Your task to perform on an android device: toggle location history Image 0: 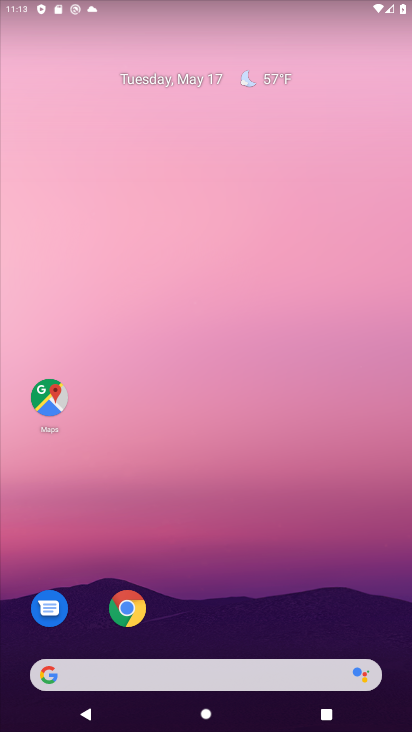
Step 0: drag from (249, 514) to (198, 78)
Your task to perform on an android device: toggle location history Image 1: 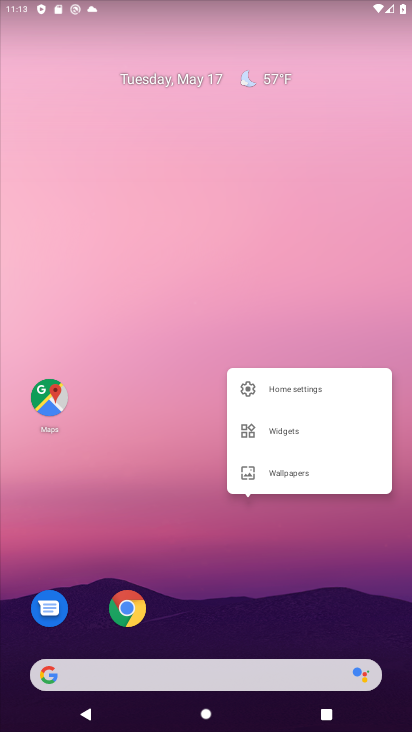
Step 1: click (142, 485)
Your task to perform on an android device: toggle location history Image 2: 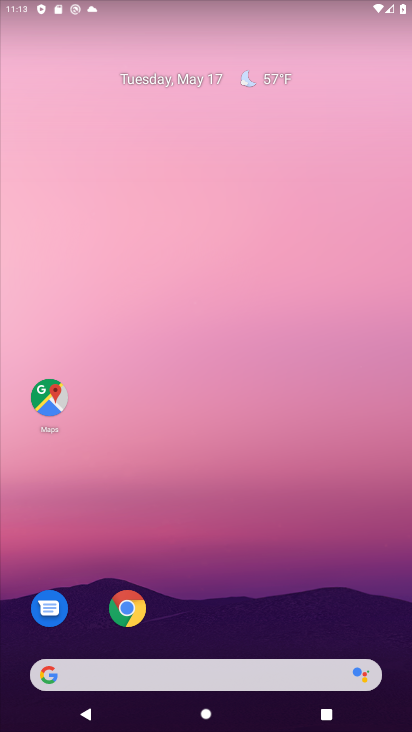
Step 2: drag from (187, 590) to (116, 98)
Your task to perform on an android device: toggle location history Image 3: 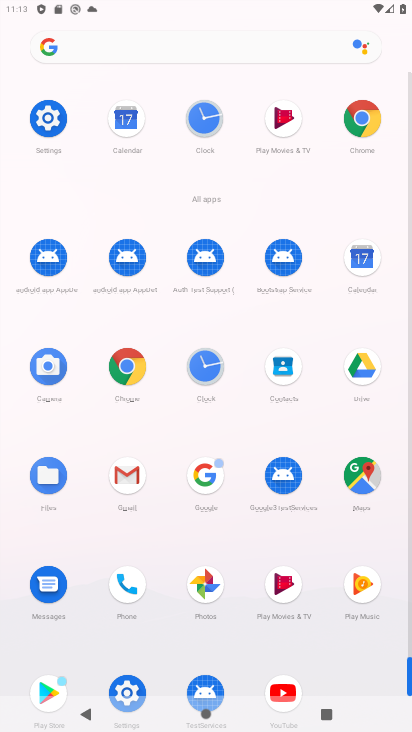
Step 3: click (356, 480)
Your task to perform on an android device: toggle location history Image 4: 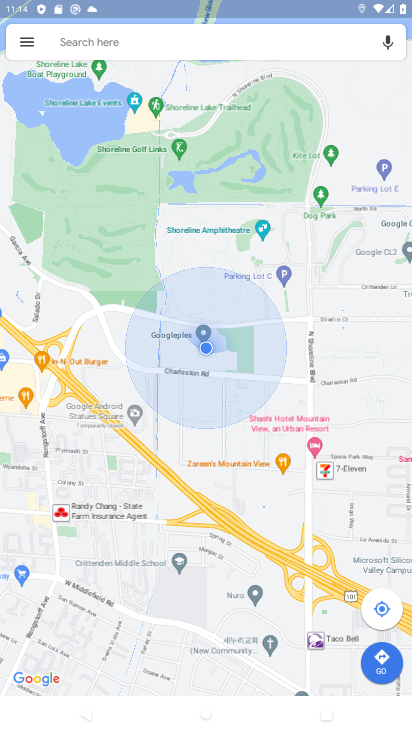
Step 4: click (20, 46)
Your task to perform on an android device: toggle location history Image 5: 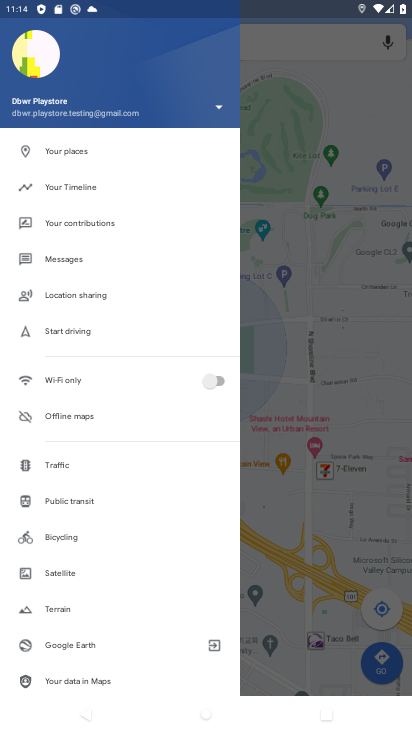
Step 5: click (79, 184)
Your task to perform on an android device: toggle location history Image 6: 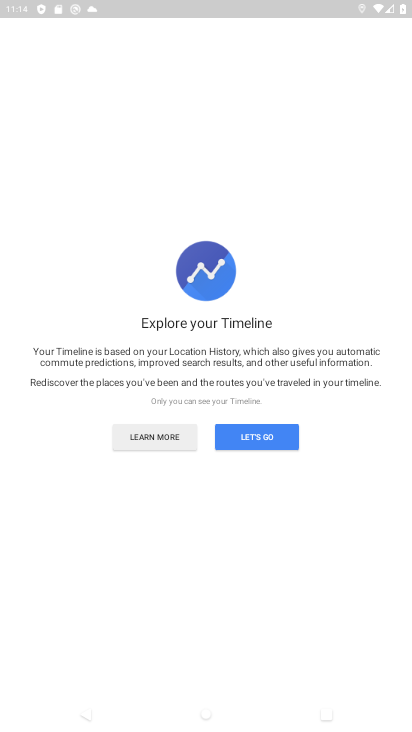
Step 6: click (240, 429)
Your task to perform on an android device: toggle location history Image 7: 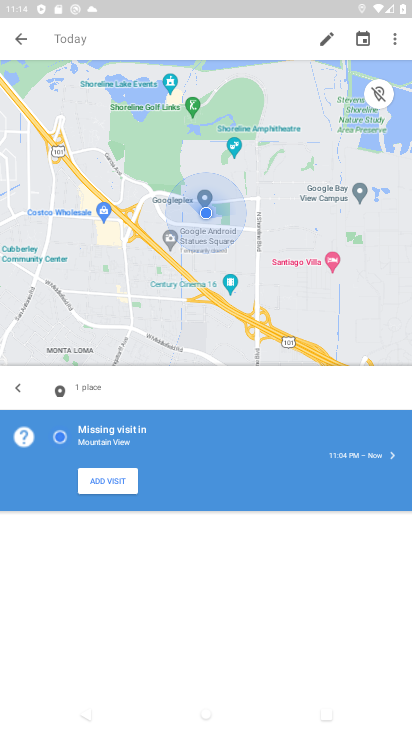
Step 7: click (394, 36)
Your task to perform on an android device: toggle location history Image 8: 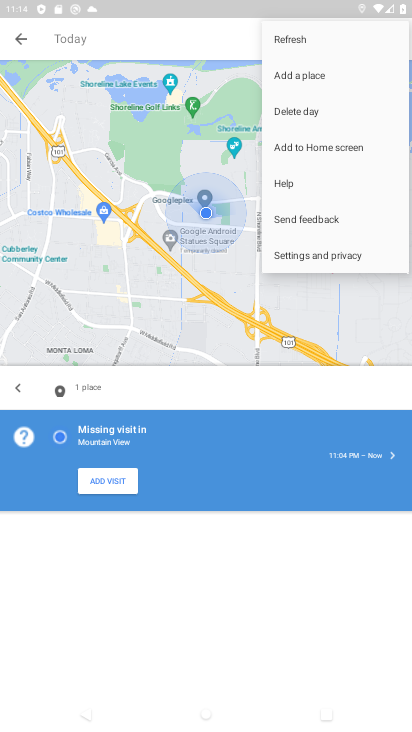
Step 8: click (307, 250)
Your task to perform on an android device: toggle location history Image 9: 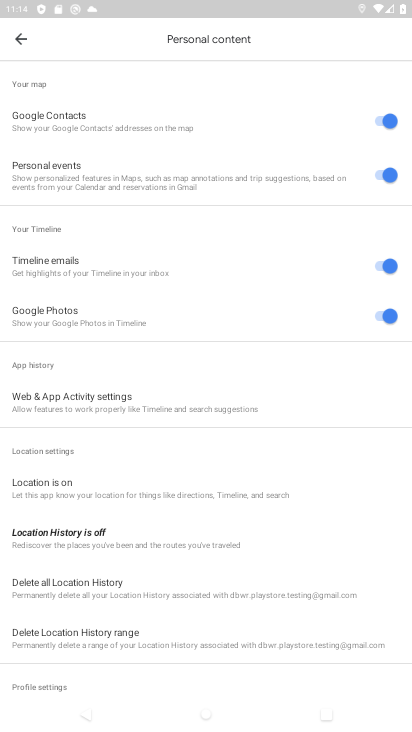
Step 9: drag from (231, 453) to (211, 289)
Your task to perform on an android device: toggle location history Image 10: 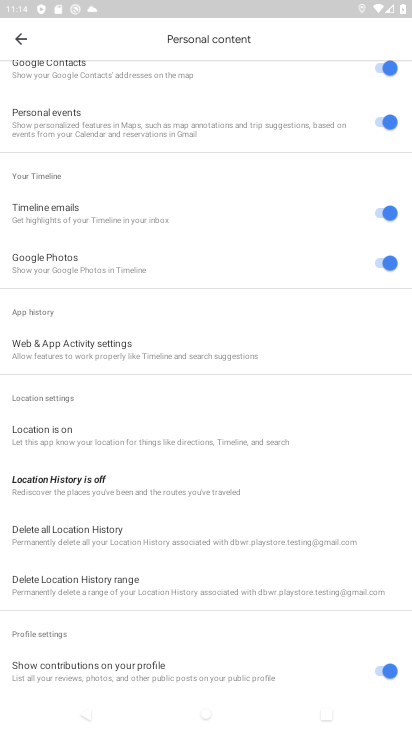
Step 10: click (70, 475)
Your task to perform on an android device: toggle location history Image 11: 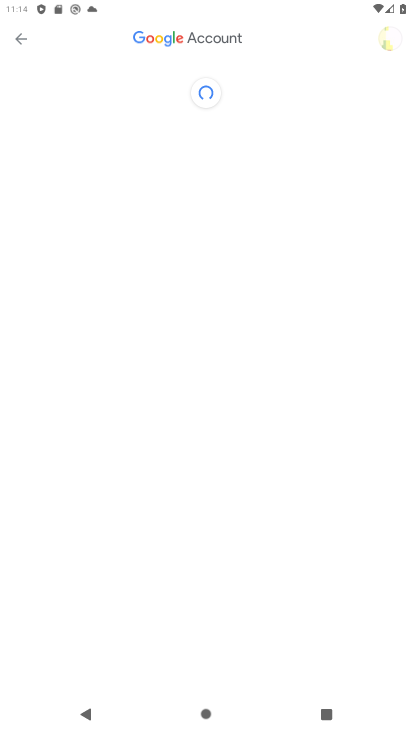
Step 11: click (64, 479)
Your task to perform on an android device: toggle location history Image 12: 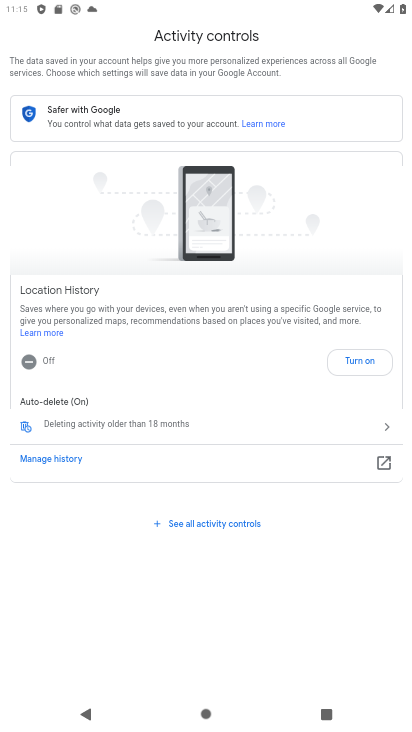
Step 12: click (360, 358)
Your task to perform on an android device: toggle location history Image 13: 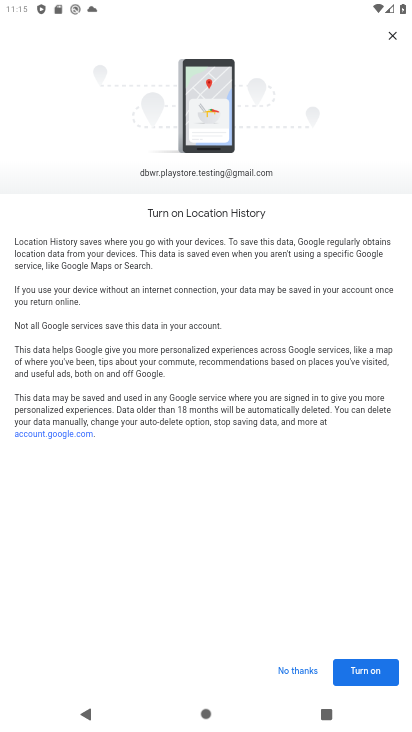
Step 13: click (365, 666)
Your task to perform on an android device: toggle location history Image 14: 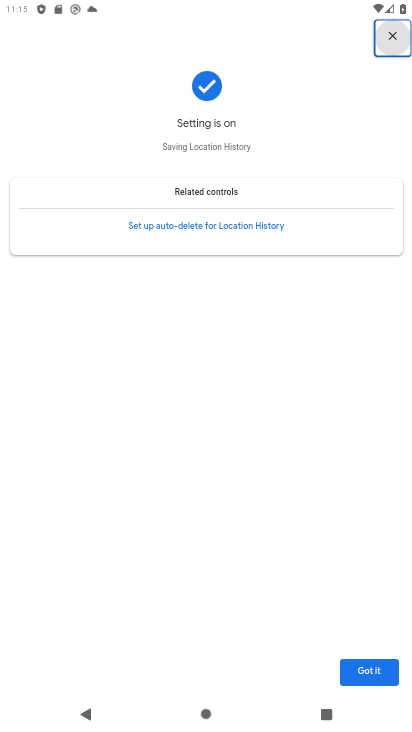
Step 14: click (365, 666)
Your task to perform on an android device: toggle location history Image 15: 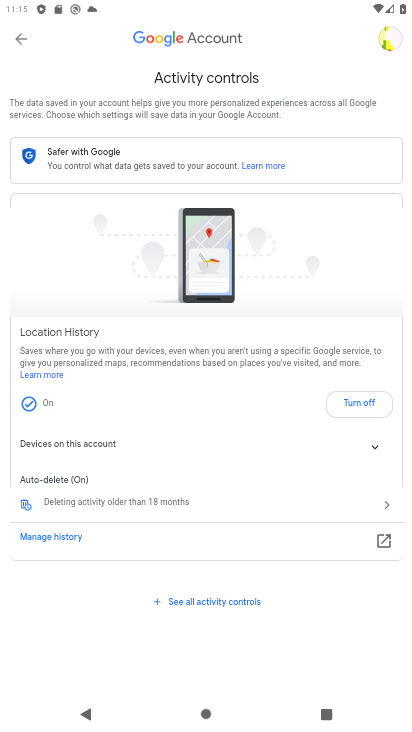
Step 15: task complete